Your task to perform on an android device: Go to eBay Image 0: 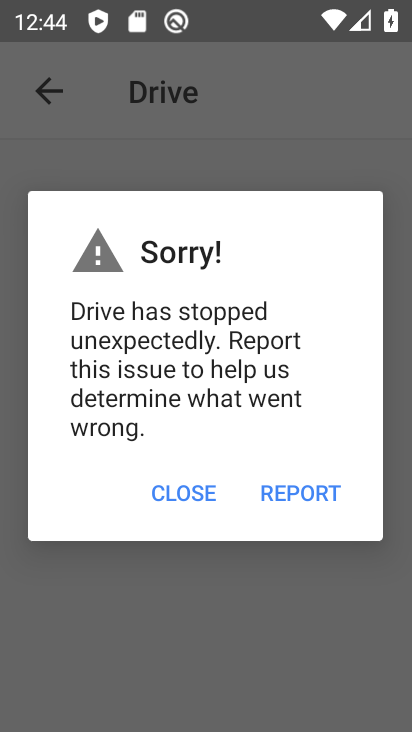
Step 0: press home button
Your task to perform on an android device: Go to eBay Image 1: 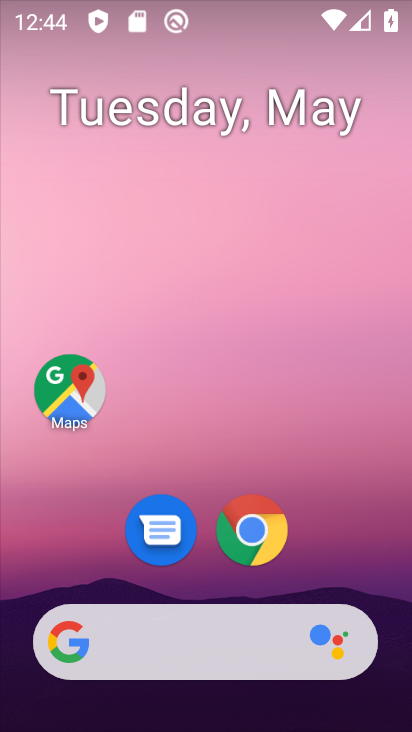
Step 1: click (253, 526)
Your task to perform on an android device: Go to eBay Image 2: 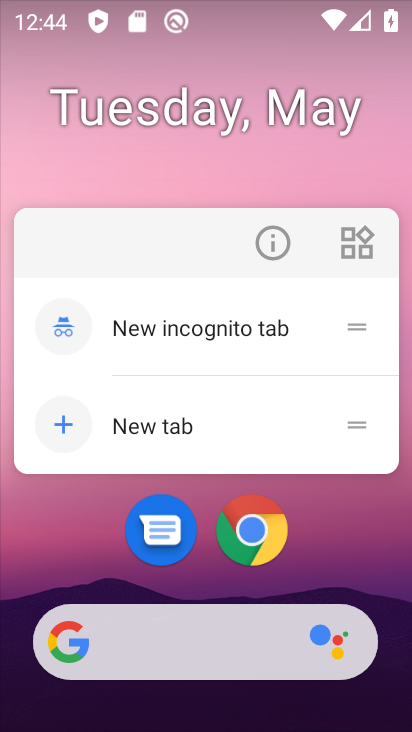
Step 2: click (254, 535)
Your task to perform on an android device: Go to eBay Image 3: 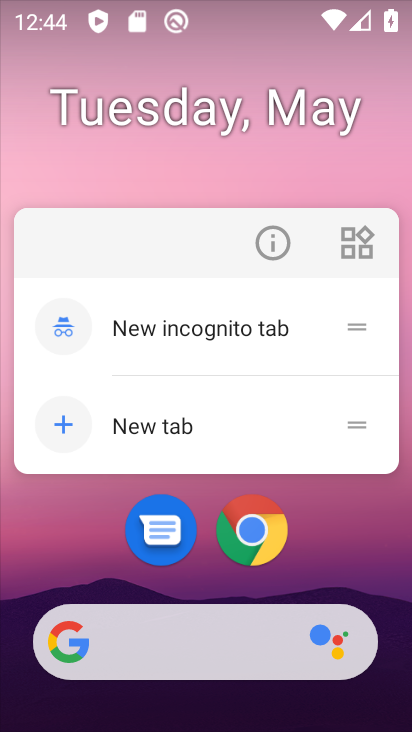
Step 3: click (246, 534)
Your task to perform on an android device: Go to eBay Image 4: 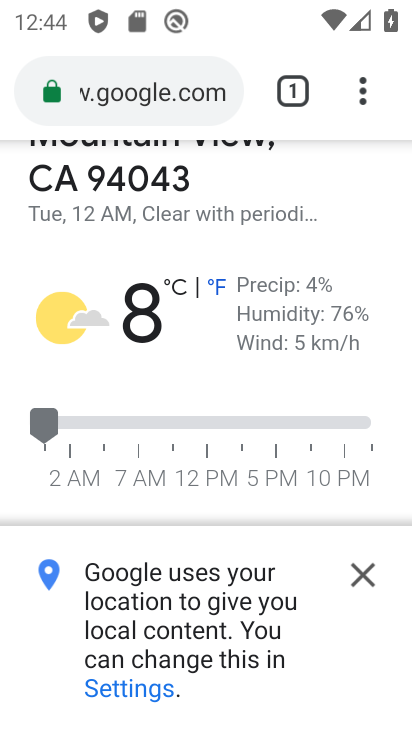
Step 4: click (133, 107)
Your task to perform on an android device: Go to eBay Image 5: 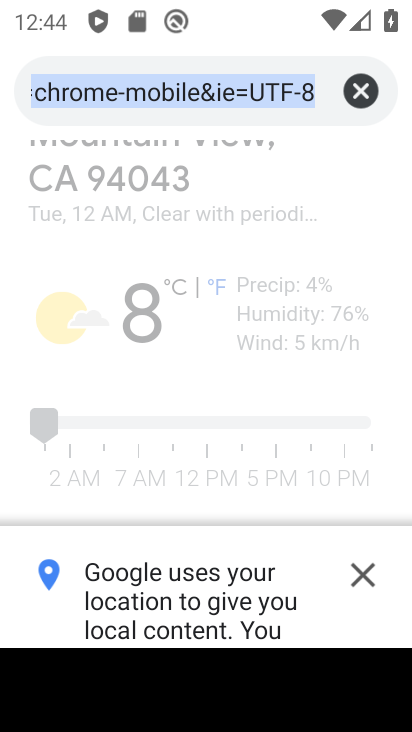
Step 5: type "eBay"
Your task to perform on an android device: Go to eBay Image 6: 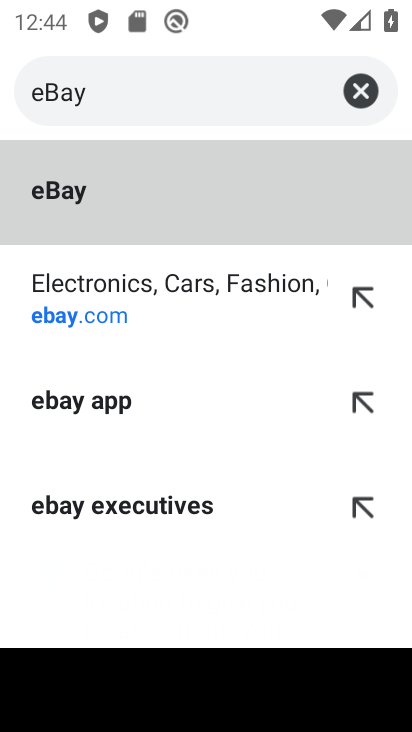
Step 6: click (103, 204)
Your task to perform on an android device: Go to eBay Image 7: 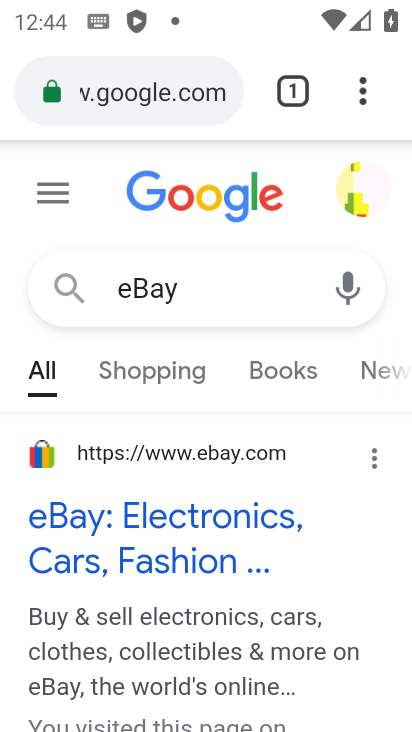
Step 7: task complete